Your task to perform on an android device: turn off location Image 0: 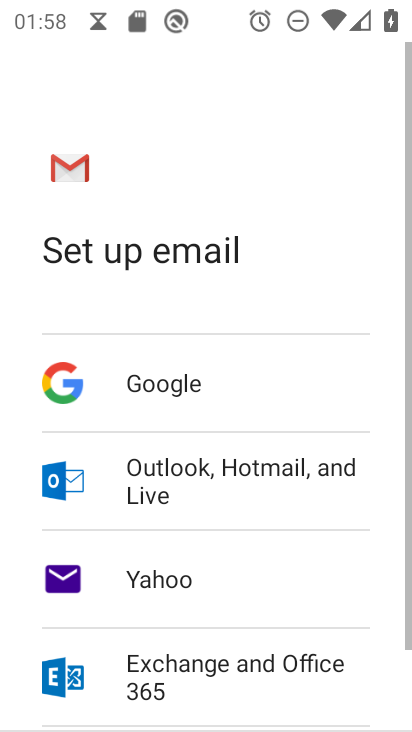
Step 0: press home button
Your task to perform on an android device: turn off location Image 1: 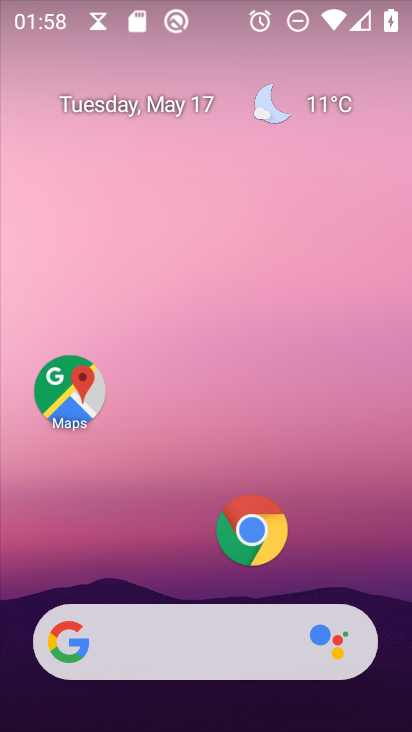
Step 1: drag from (324, 548) to (291, 155)
Your task to perform on an android device: turn off location Image 2: 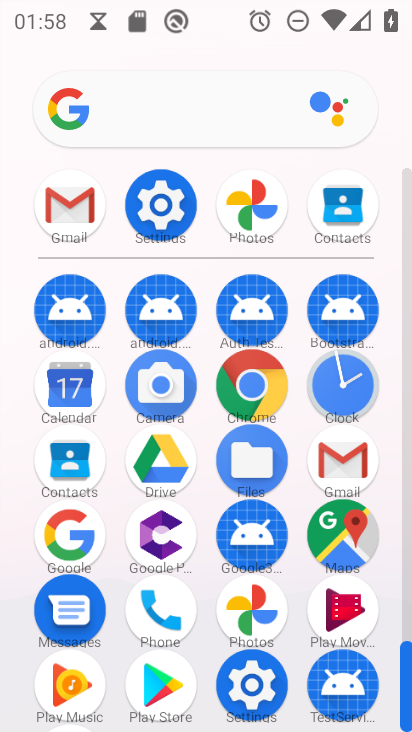
Step 2: click (179, 221)
Your task to perform on an android device: turn off location Image 3: 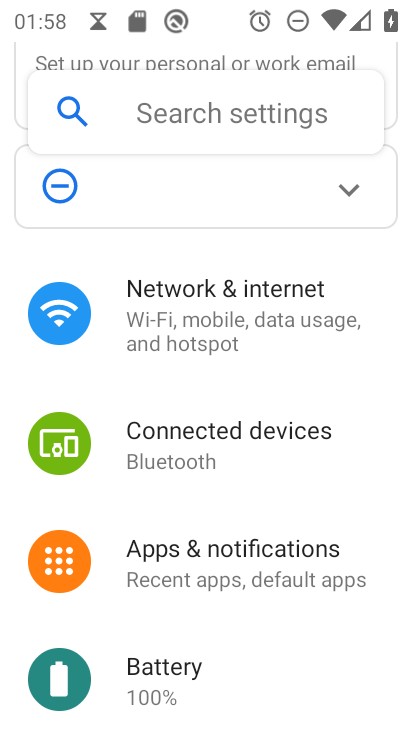
Step 3: drag from (271, 644) to (271, 212)
Your task to perform on an android device: turn off location Image 4: 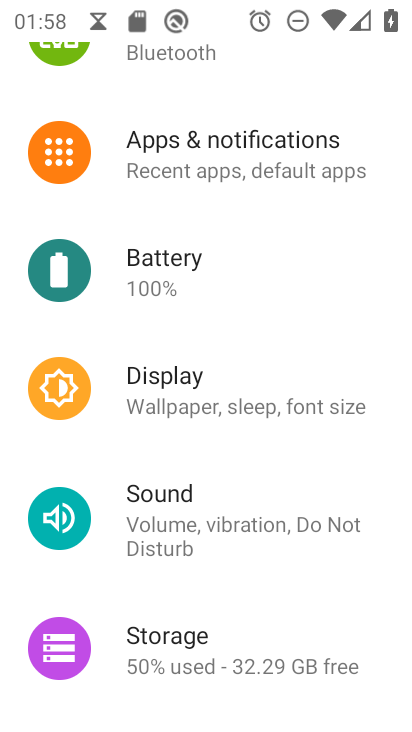
Step 4: drag from (245, 637) to (272, 273)
Your task to perform on an android device: turn off location Image 5: 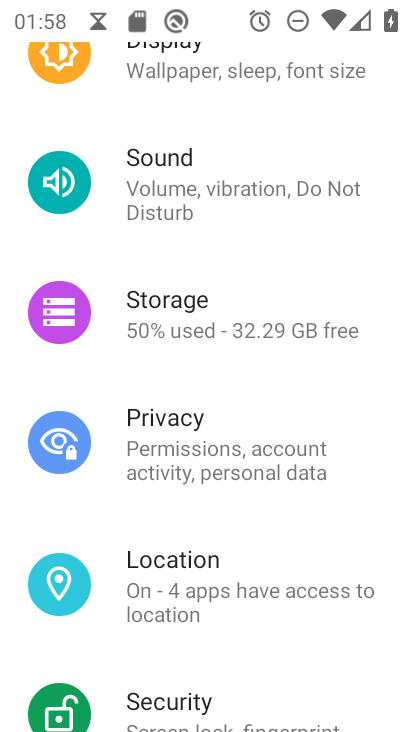
Step 5: click (249, 583)
Your task to perform on an android device: turn off location Image 6: 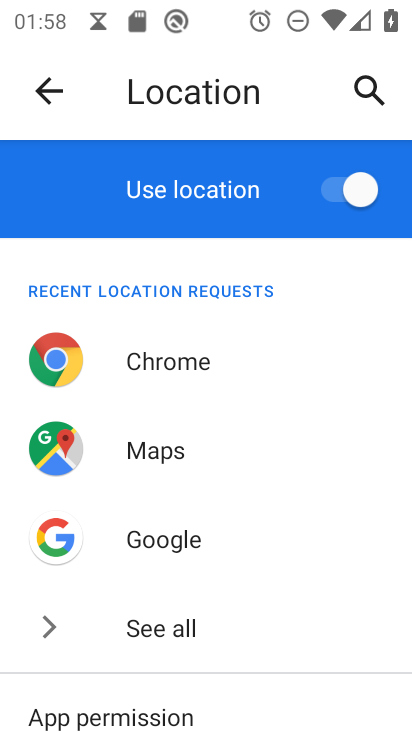
Step 6: click (338, 179)
Your task to perform on an android device: turn off location Image 7: 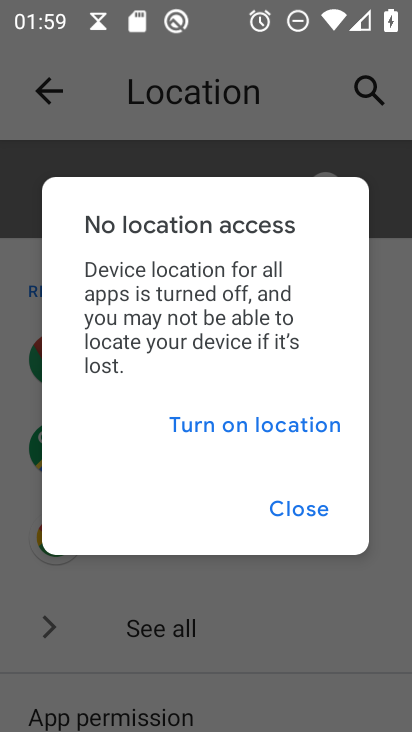
Step 7: click (310, 511)
Your task to perform on an android device: turn off location Image 8: 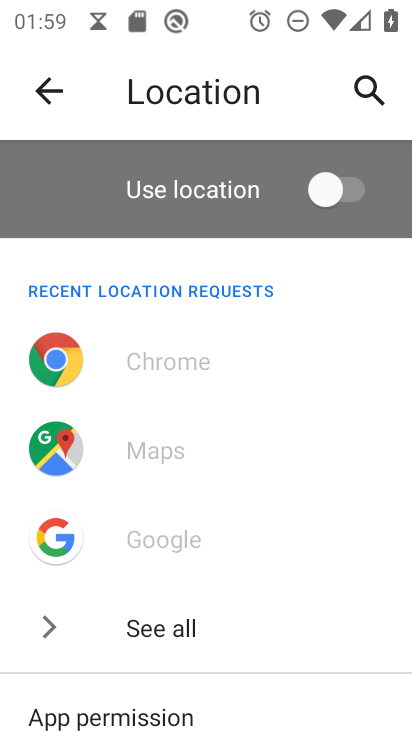
Step 8: task complete